Your task to perform on an android device: open the mobile data screen to see how much data has been used Image 0: 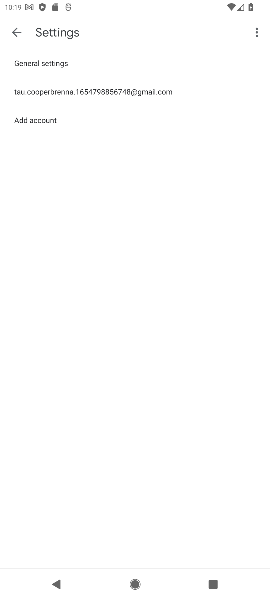
Step 0: press home button
Your task to perform on an android device: open the mobile data screen to see how much data has been used Image 1: 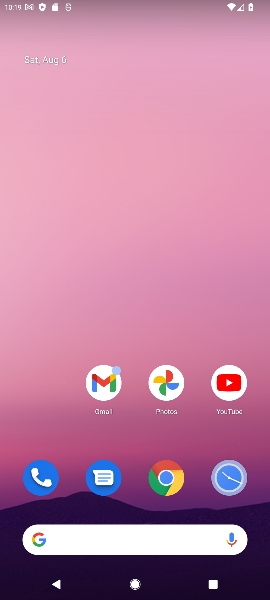
Step 1: drag from (137, 490) to (151, 84)
Your task to perform on an android device: open the mobile data screen to see how much data has been used Image 2: 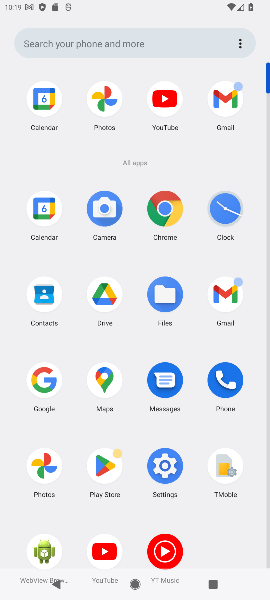
Step 2: click (167, 460)
Your task to perform on an android device: open the mobile data screen to see how much data has been used Image 3: 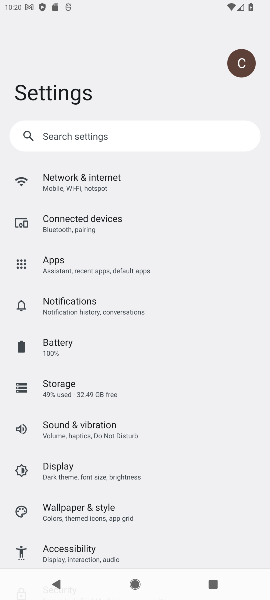
Step 3: click (75, 189)
Your task to perform on an android device: open the mobile data screen to see how much data has been used Image 4: 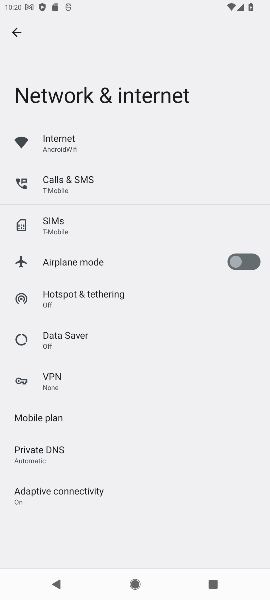
Step 4: click (51, 137)
Your task to perform on an android device: open the mobile data screen to see how much data has been used Image 5: 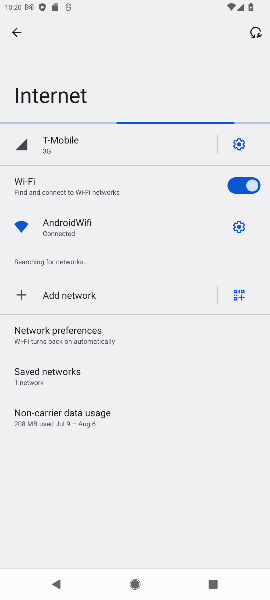
Step 5: click (81, 417)
Your task to perform on an android device: open the mobile data screen to see how much data has been used Image 6: 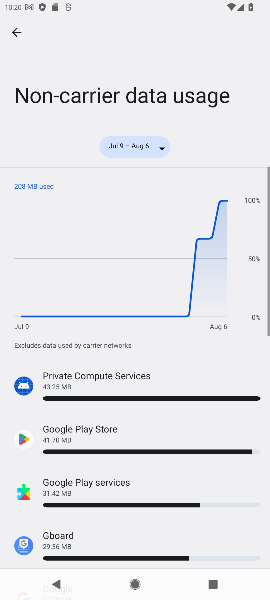
Step 6: task complete